Your task to perform on an android device: turn off notifications in google photos Image 0: 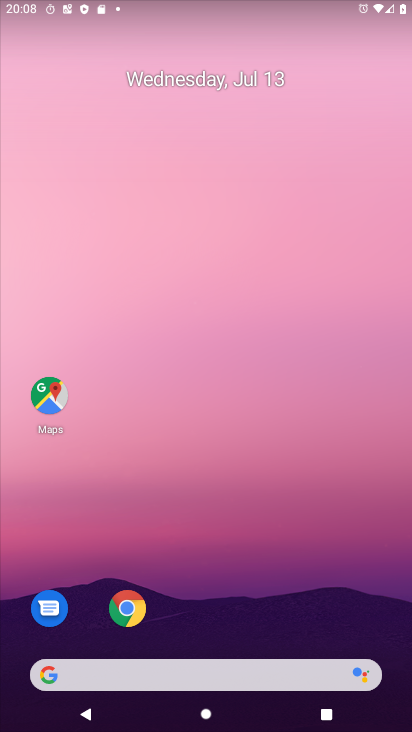
Step 0: drag from (192, 672) to (201, 109)
Your task to perform on an android device: turn off notifications in google photos Image 1: 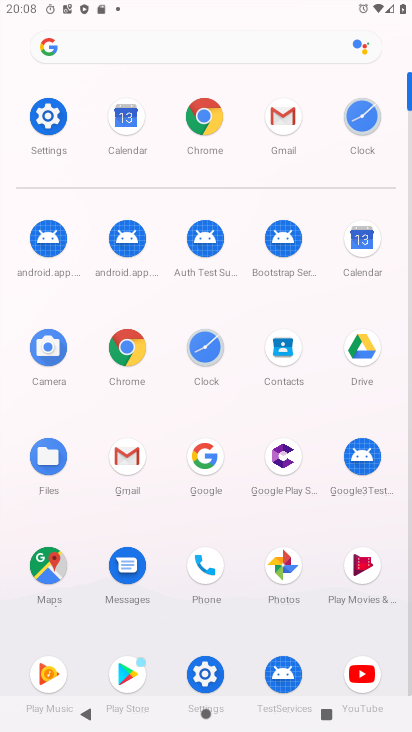
Step 1: click (292, 565)
Your task to perform on an android device: turn off notifications in google photos Image 2: 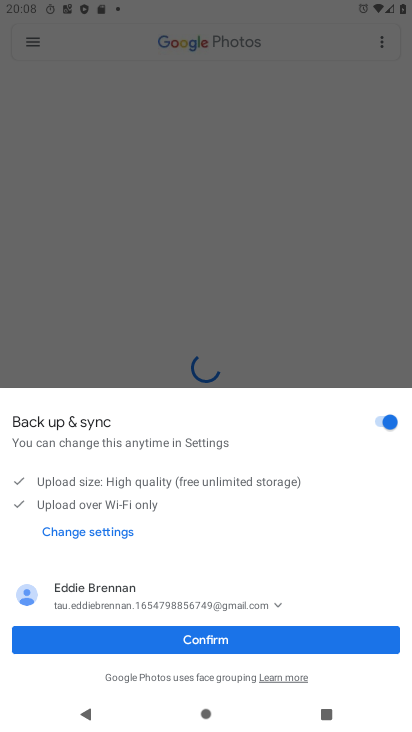
Step 2: click (180, 639)
Your task to perform on an android device: turn off notifications in google photos Image 3: 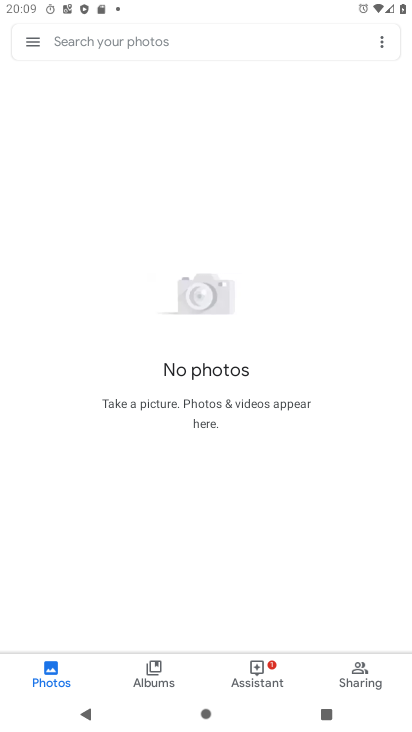
Step 3: click (13, 29)
Your task to perform on an android device: turn off notifications in google photos Image 4: 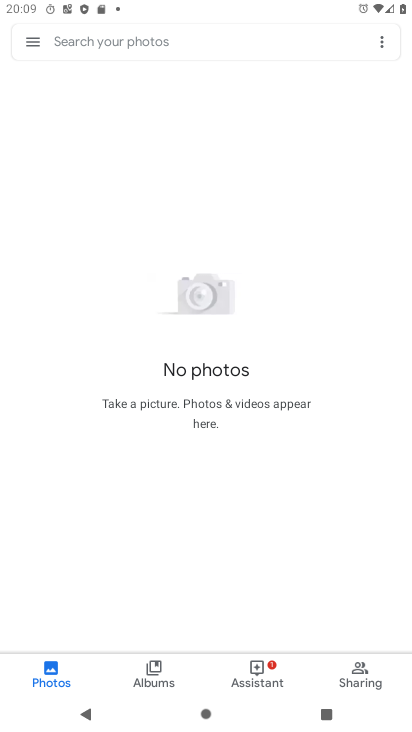
Step 4: click (29, 34)
Your task to perform on an android device: turn off notifications in google photos Image 5: 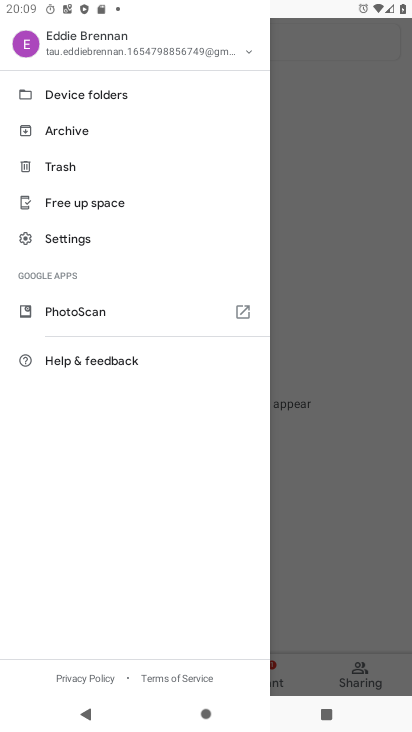
Step 5: click (45, 240)
Your task to perform on an android device: turn off notifications in google photos Image 6: 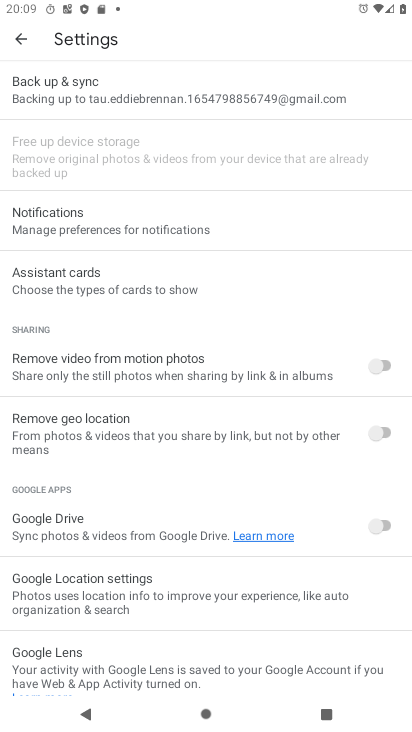
Step 6: click (89, 220)
Your task to perform on an android device: turn off notifications in google photos Image 7: 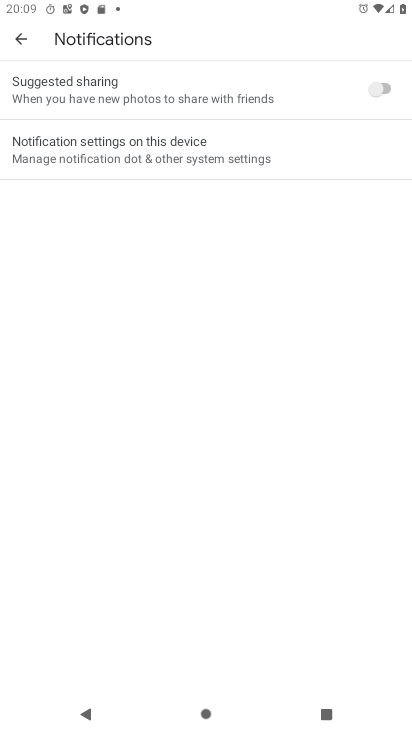
Step 7: click (192, 150)
Your task to perform on an android device: turn off notifications in google photos Image 8: 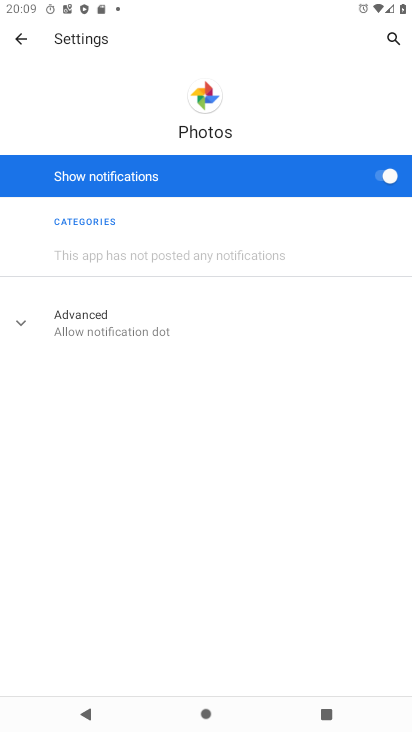
Step 8: click (386, 173)
Your task to perform on an android device: turn off notifications in google photos Image 9: 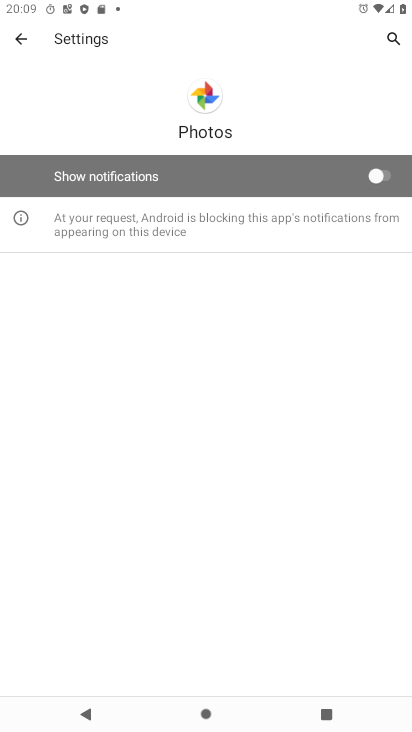
Step 9: task complete